Your task to perform on an android device: What's on my calendar today? Image 0: 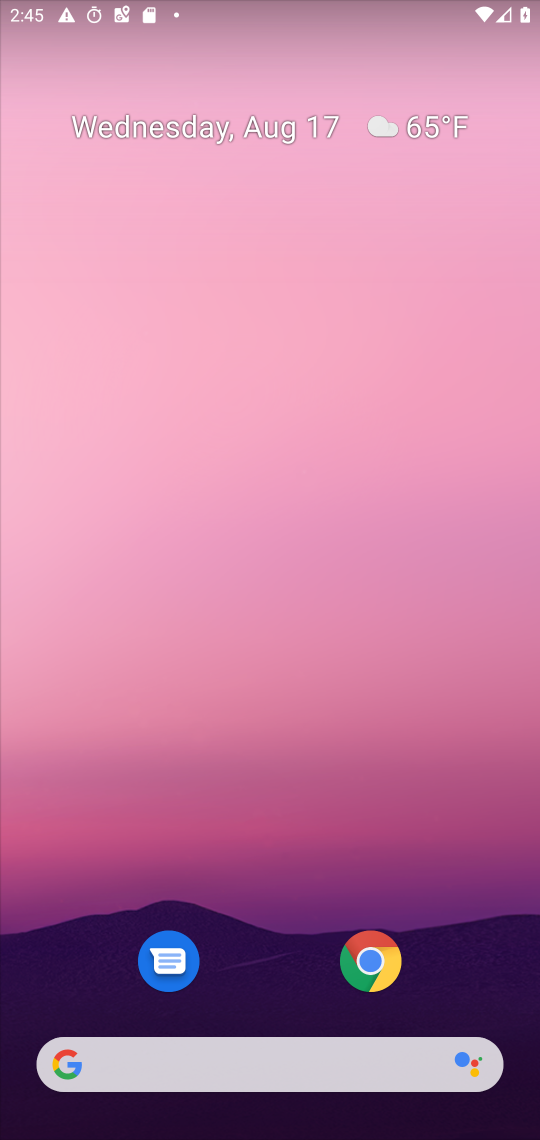
Step 0: drag from (251, 973) to (211, 91)
Your task to perform on an android device: What's on my calendar today? Image 1: 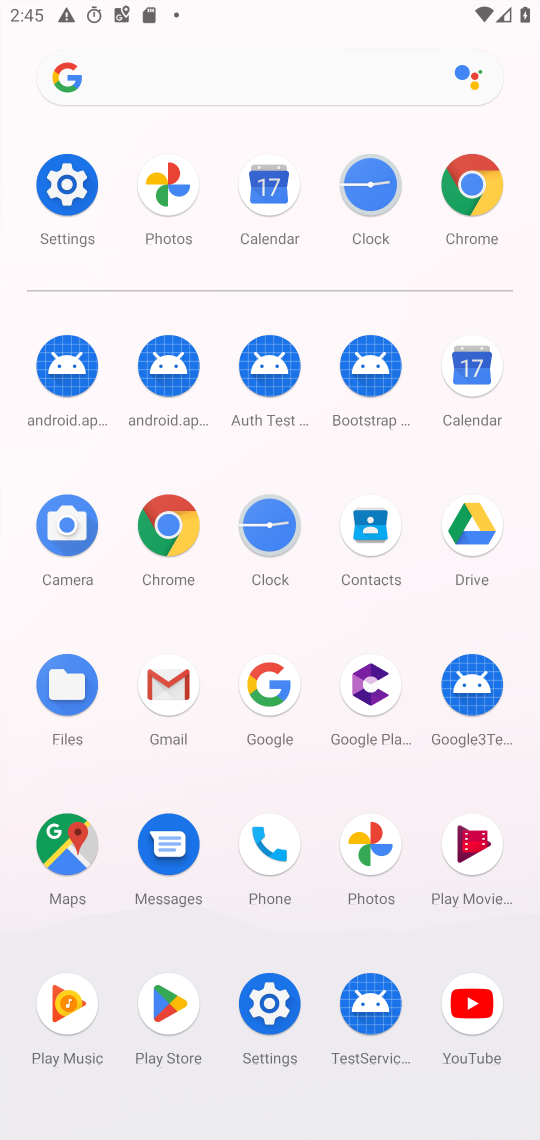
Step 1: click (495, 380)
Your task to perform on an android device: What's on my calendar today? Image 2: 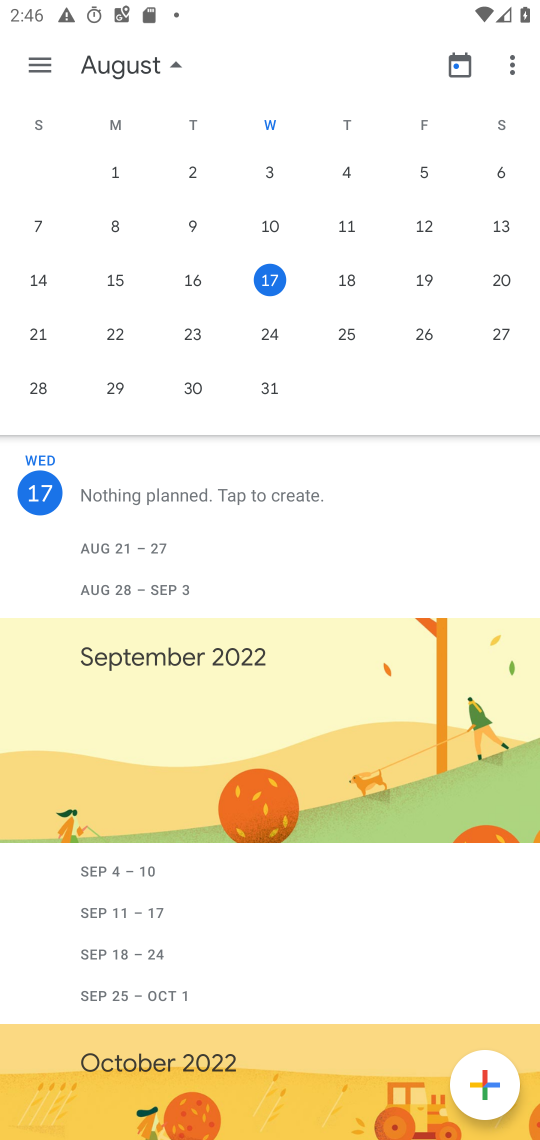
Step 2: click (265, 283)
Your task to perform on an android device: What's on my calendar today? Image 3: 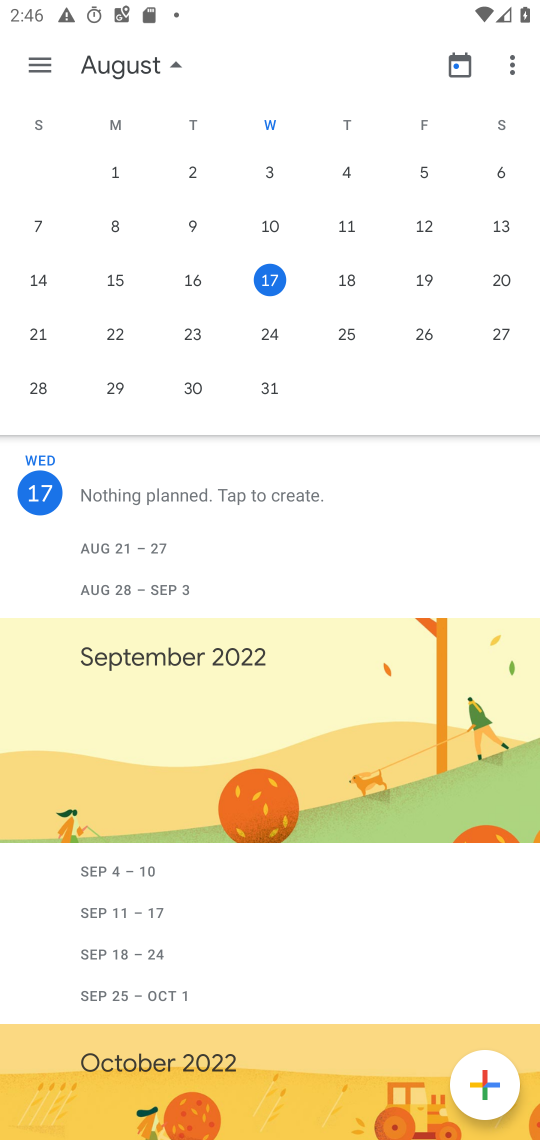
Step 3: task complete